Your task to perform on an android device: turn off sleep mode Image 0: 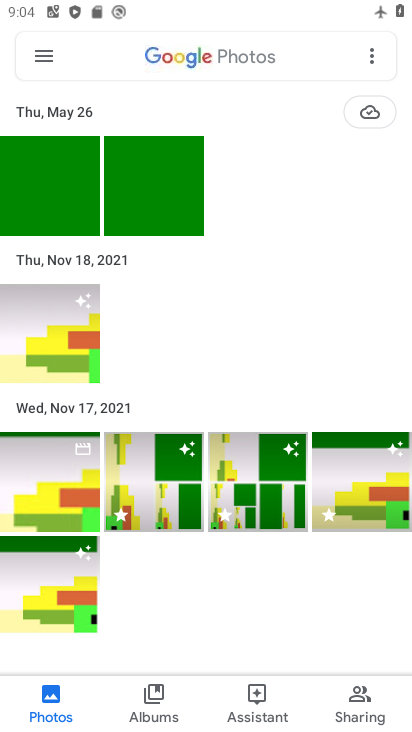
Step 0: press home button
Your task to perform on an android device: turn off sleep mode Image 1: 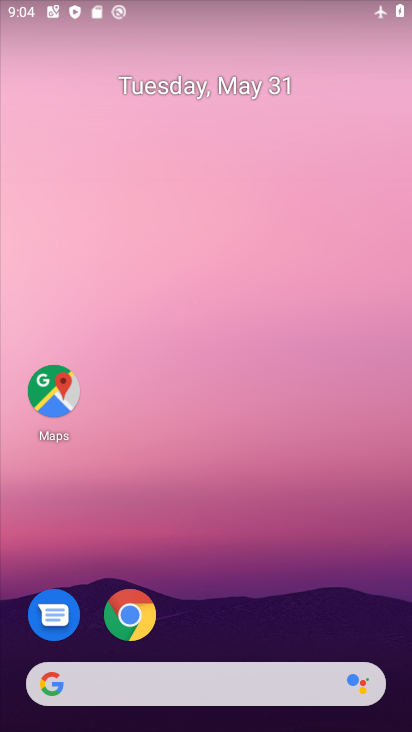
Step 1: drag from (345, 614) to (313, 245)
Your task to perform on an android device: turn off sleep mode Image 2: 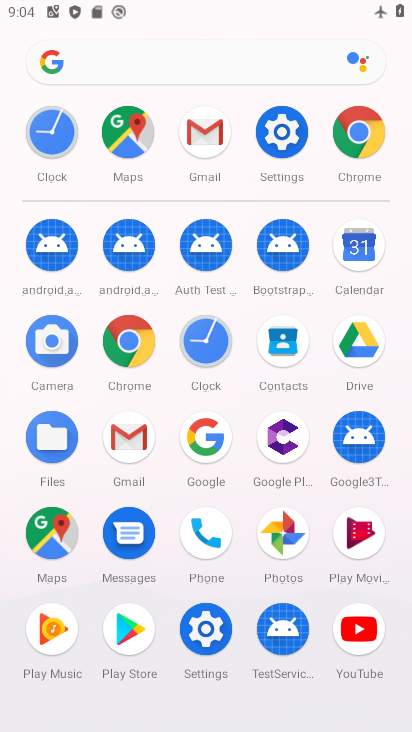
Step 2: click (205, 629)
Your task to perform on an android device: turn off sleep mode Image 3: 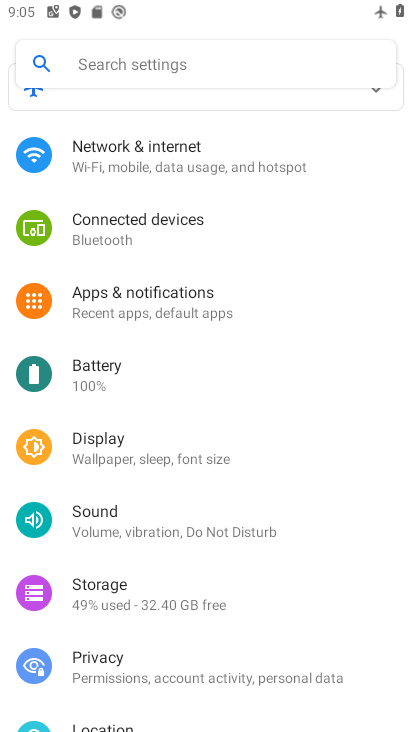
Step 3: click (122, 448)
Your task to perform on an android device: turn off sleep mode Image 4: 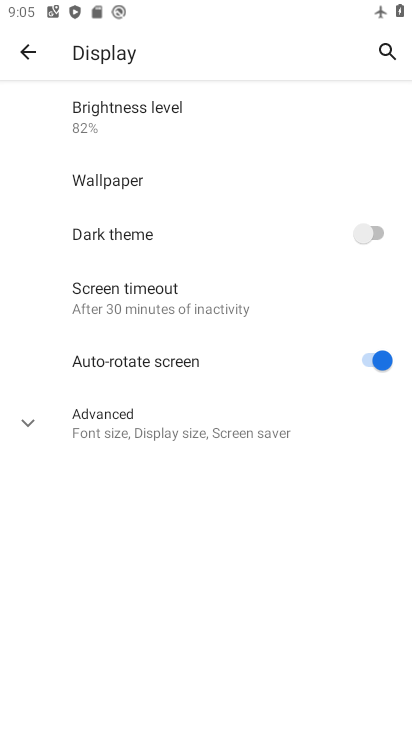
Step 4: click (34, 435)
Your task to perform on an android device: turn off sleep mode Image 5: 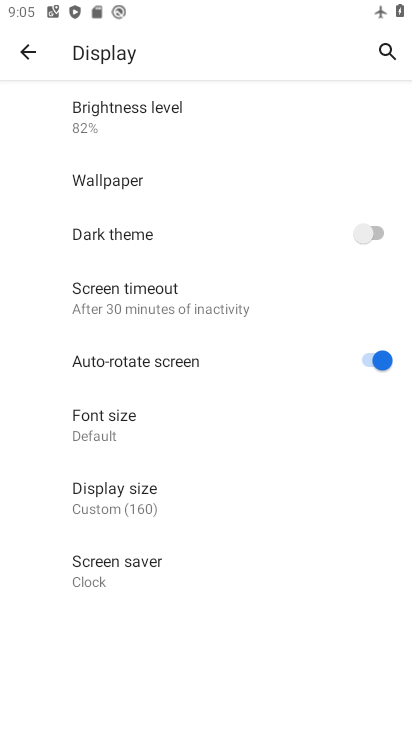
Step 5: click (92, 433)
Your task to perform on an android device: turn off sleep mode Image 6: 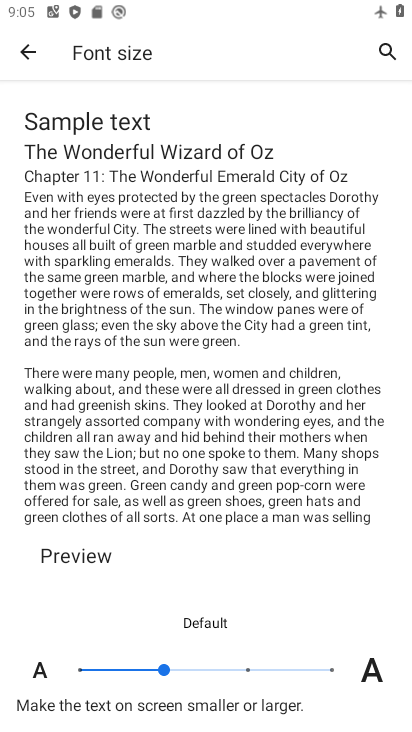
Step 6: click (247, 671)
Your task to perform on an android device: turn off sleep mode Image 7: 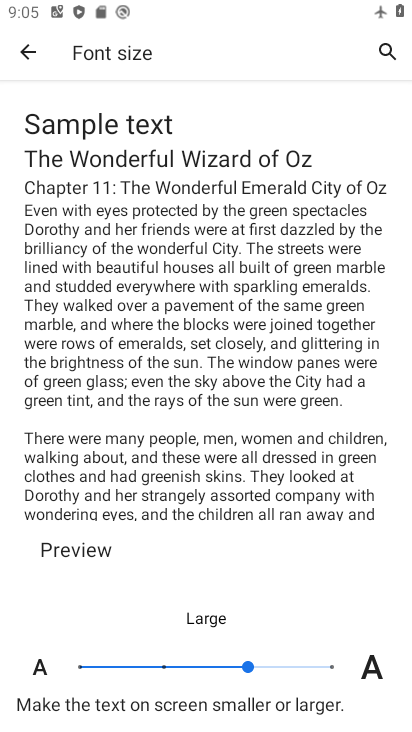
Step 7: task complete